Your task to perform on an android device: What's the weather going to be tomorrow? Image 0: 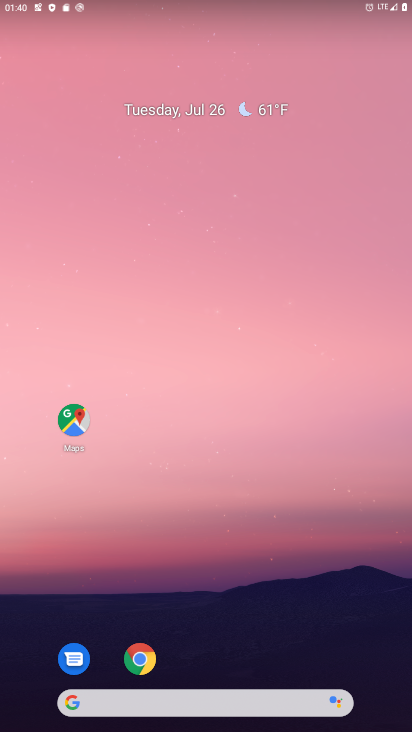
Step 0: drag from (275, 626) to (217, 0)
Your task to perform on an android device: What's the weather going to be tomorrow? Image 1: 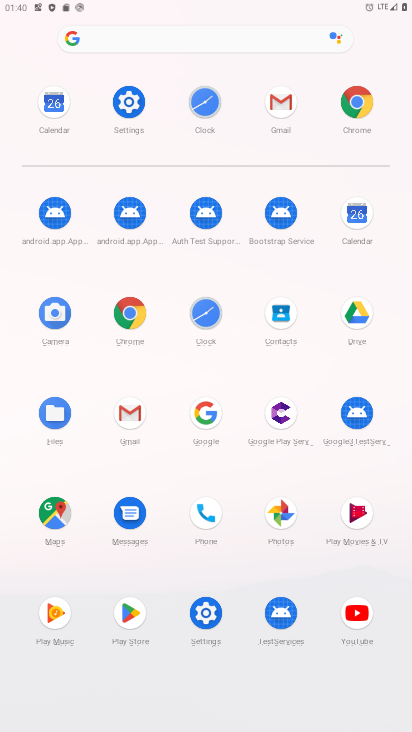
Step 1: click (349, 106)
Your task to perform on an android device: What's the weather going to be tomorrow? Image 2: 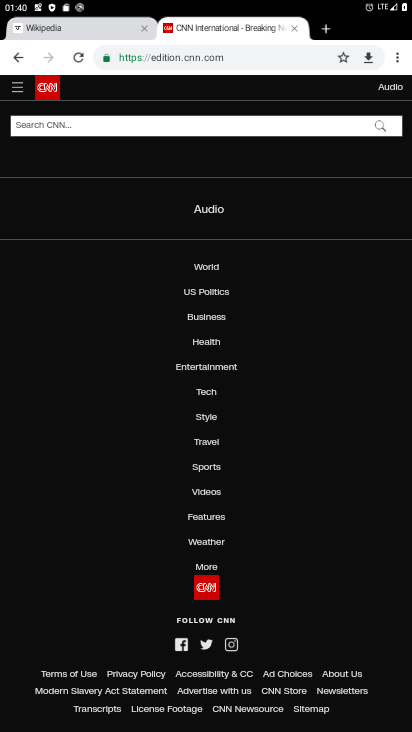
Step 2: click (272, 48)
Your task to perform on an android device: What's the weather going to be tomorrow? Image 3: 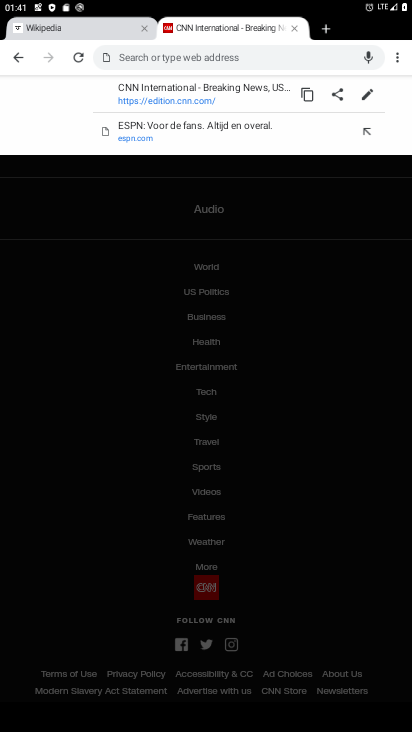
Step 3: type "weather"
Your task to perform on an android device: What's the weather going to be tomorrow? Image 4: 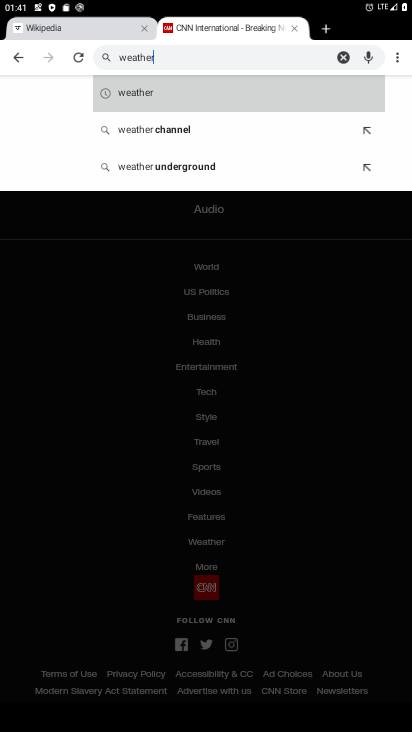
Step 4: press enter
Your task to perform on an android device: What's the weather going to be tomorrow? Image 5: 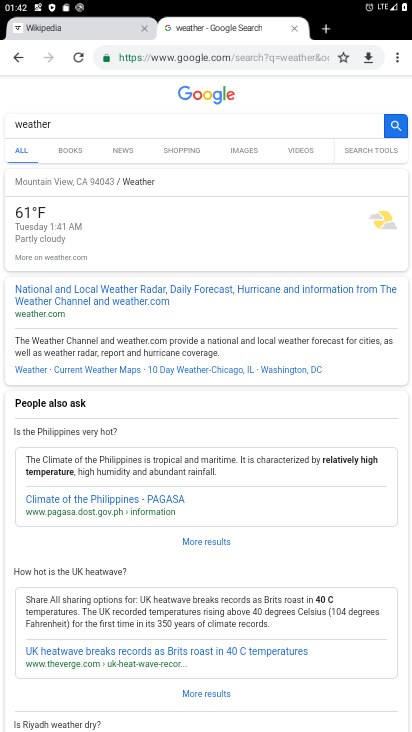
Step 5: type "tommorw"
Your task to perform on an android device: What's the weather going to be tomorrow? Image 6: 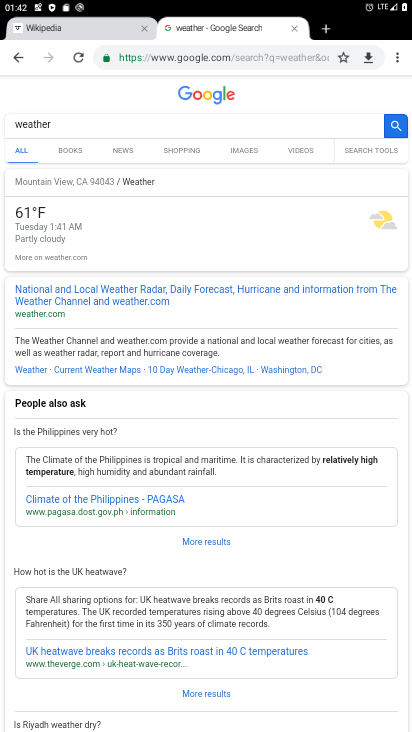
Step 6: click (299, 118)
Your task to perform on an android device: What's the weather going to be tomorrow? Image 7: 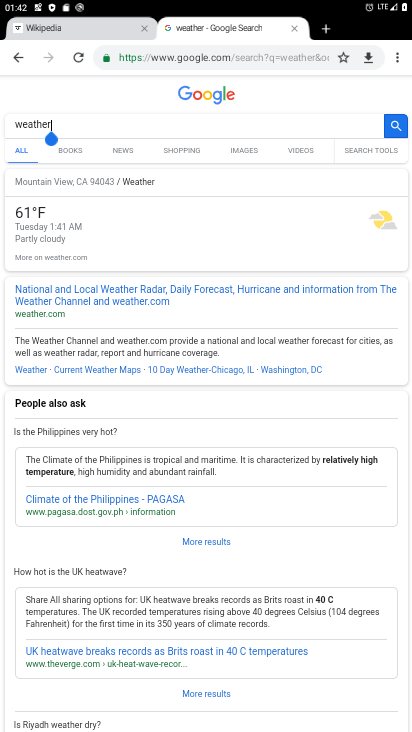
Step 7: click (297, 129)
Your task to perform on an android device: What's the weather going to be tomorrow? Image 8: 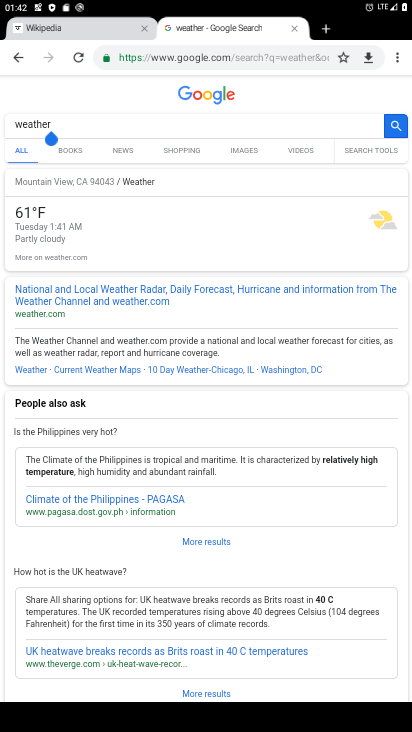
Step 8: type " tommorow"
Your task to perform on an android device: What's the weather going to be tomorrow? Image 9: 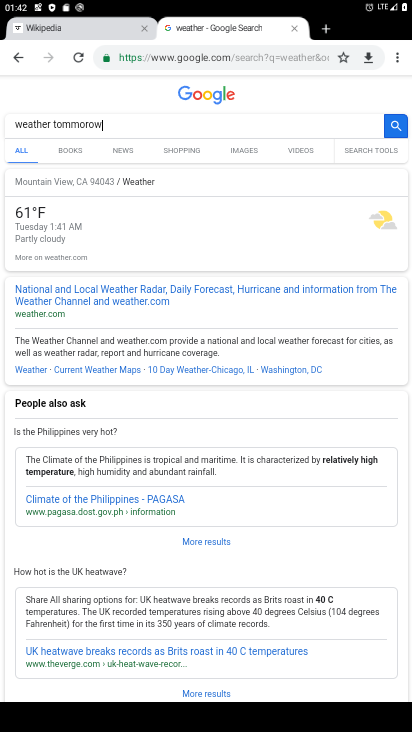
Step 9: click (393, 122)
Your task to perform on an android device: What's the weather going to be tomorrow? Image 10: 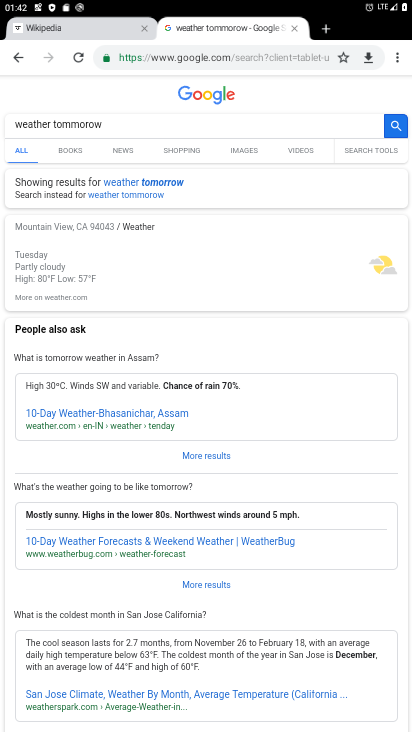
Step 10: task complete